Your task to perform on an android device: Go to Reddit.com Image 0: 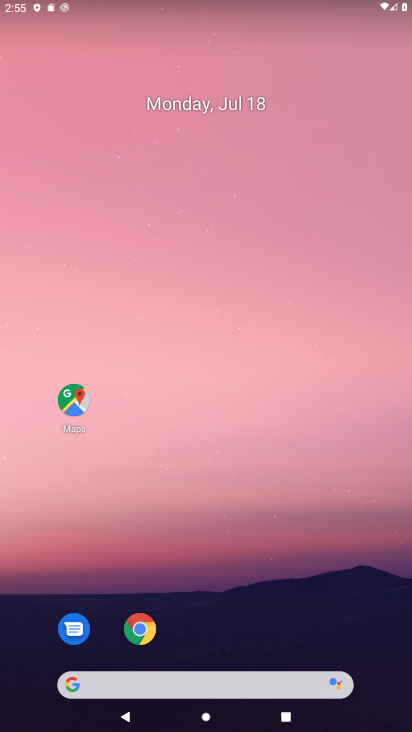
Step 0: click (137, 623)
Your task to perform on an android device: Go to Reddit.com Image 1: 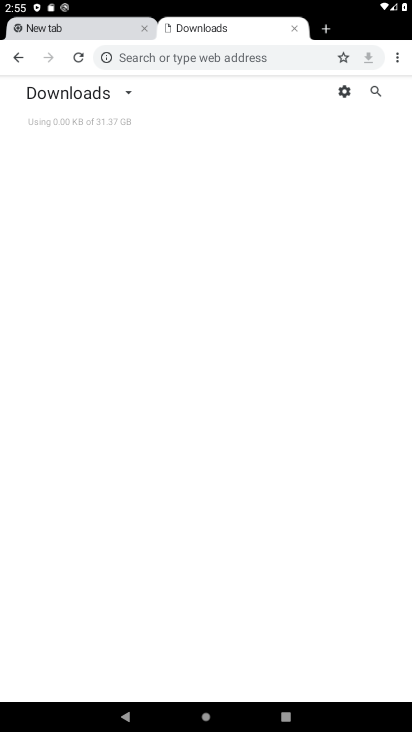
Step 1: click (23, 59)
Your task to perform on an android device: Go to Reddit.com Image 2: 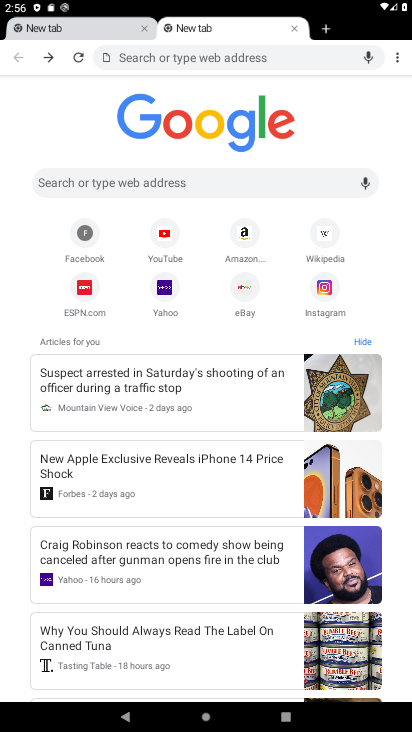
Step 2: type "Reddit.com"
Your task to perform on an android device: Go to Reddit.com Image 3: 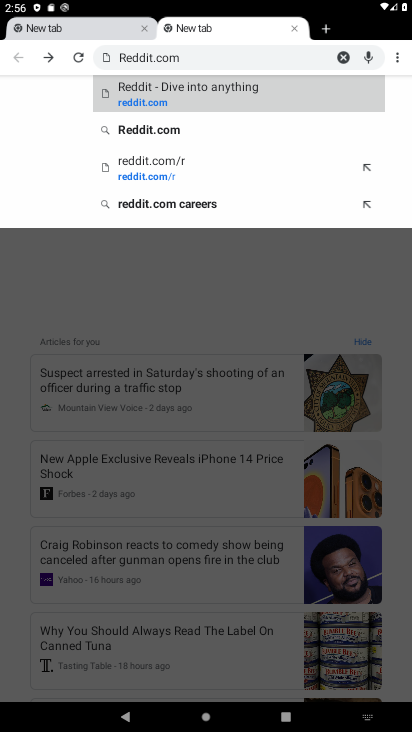
Step 3: click (161, 127)
Your task to perform on an android device: Go to Reddit.com Image 4: 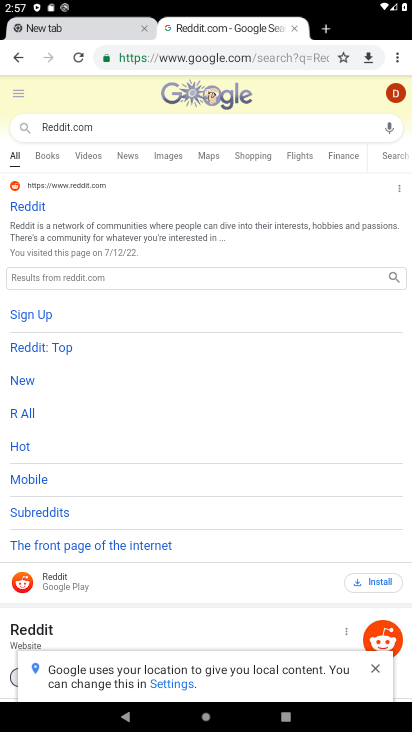
Step 4: task complete